Your task to perform on an android device: Open Google Maps and go to "Timeline" Image 0: 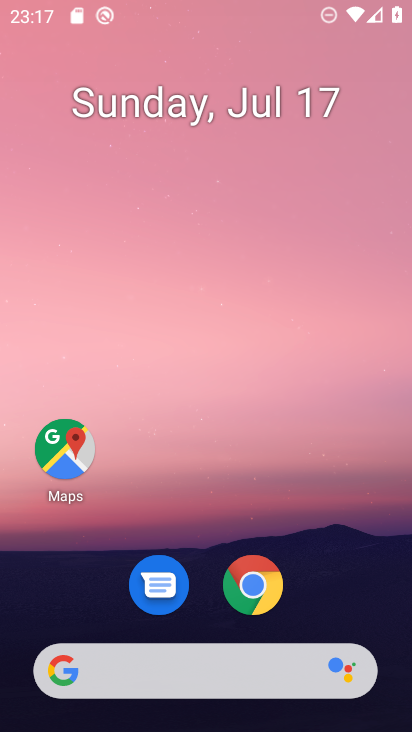
Step 0: press home button
Your task to perform on an android device: Open Google Maps and go to "Timeline" Image 1: 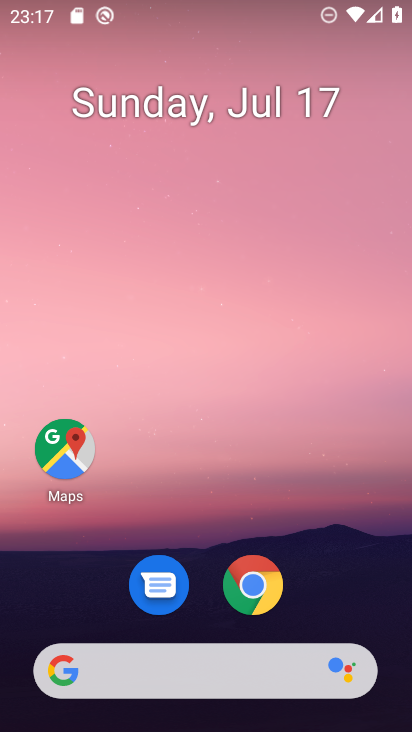
Step 1: click (58, 440)
Your task to perform on an android device: Open Google Maps and go to "Timeline" Image 2: 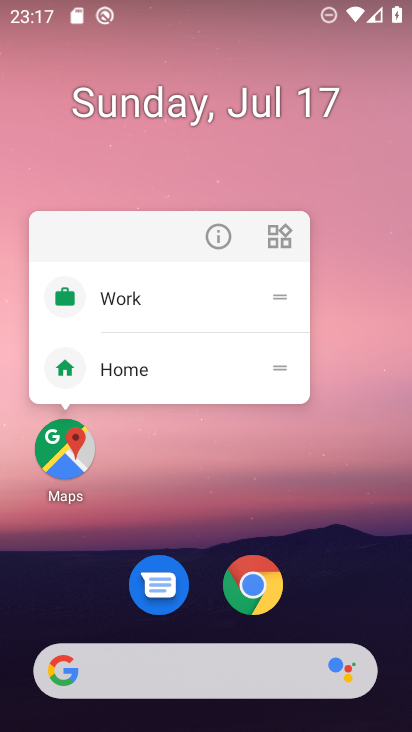
Step 2: click (59, 446)
Your task to perform on an android device: Open Google Maps and go to "Timeline" Image 3: 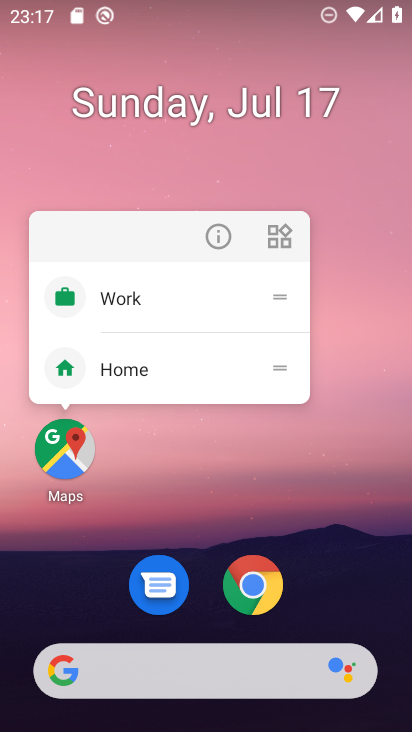
Step 3: click (65, 463)
Your task to perform on an android device: Open Google Maps and go to "Timeline" Image 4: 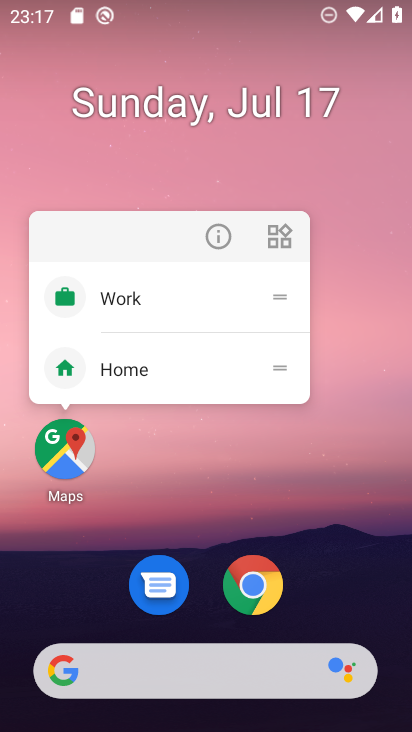
Step 4: click (67, 458)
Your task to perform on an android device: Open Google Maps and go to "Timeline" Image 5: 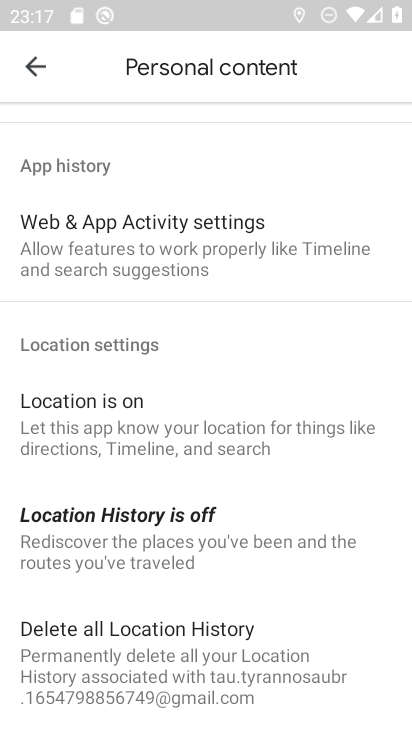
Step 5: click (35, 69)
Your task to perform on an android device: Open Google Maps and go to "Timeline" Image 6: 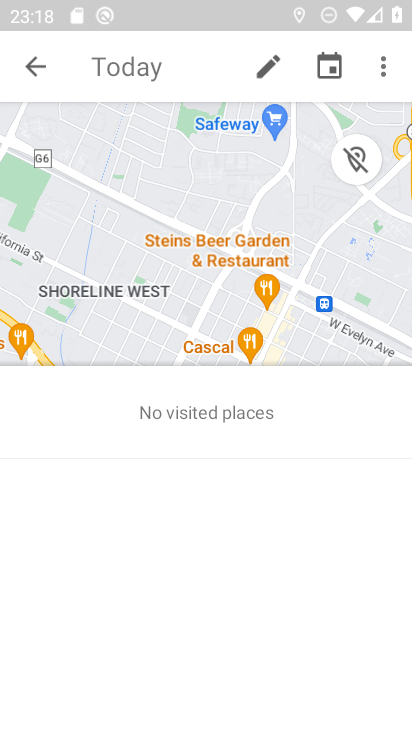
Step 6: task complete